Your task to perform on an android device: move a message to another label in the gmail app Image 0: 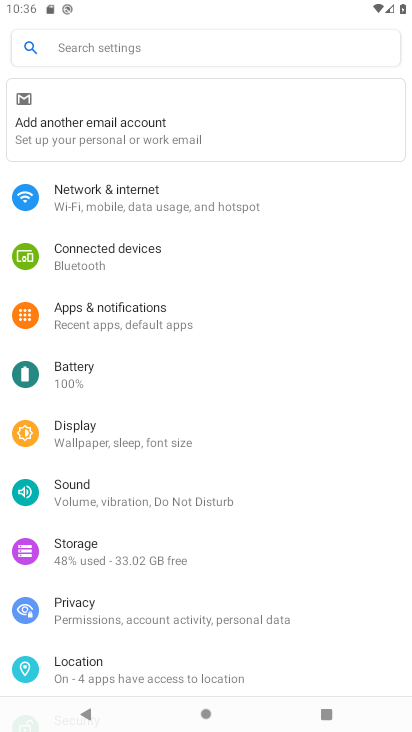
Step 0: press back button
Your task to perform on an android device: move a message to another label in the gmail app Image 1: 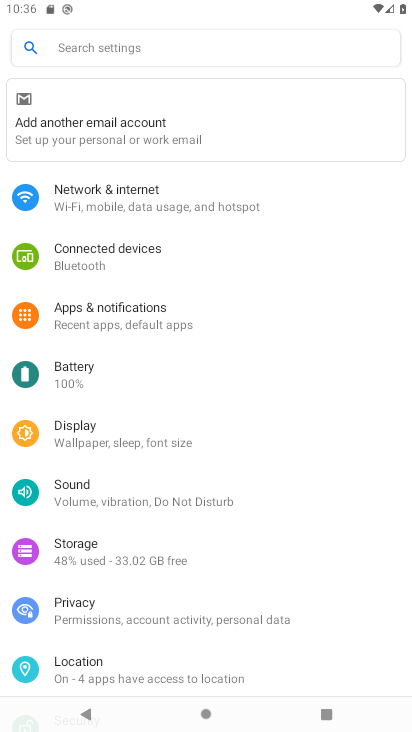
Step 1: press back button
Your task to perform on an android device: move a message to another label in the gmail app Image 2: 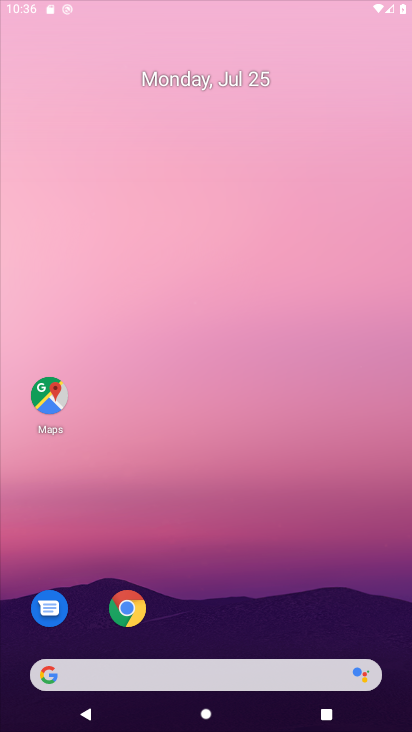
Step 2: press back button
Your task to perform on an android device: move a message to another label in the gmail app Image 3: 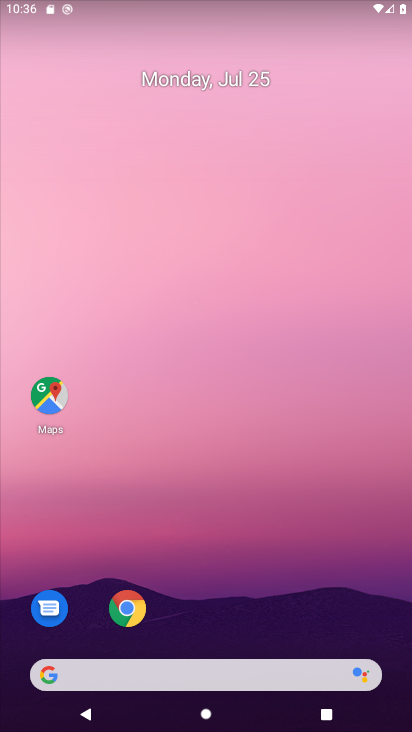
Step 3: drag from (207, 548) to (233, 64)
Your task to perform on an android device: move a message to another label in the gmail app Image 4: 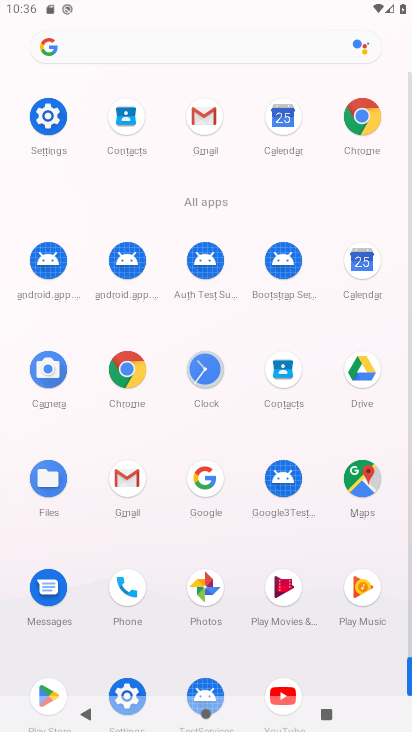
Step 4: click (126, 473)
Your task to perform on an android device: move a message to another label in the gmail app Image 5: 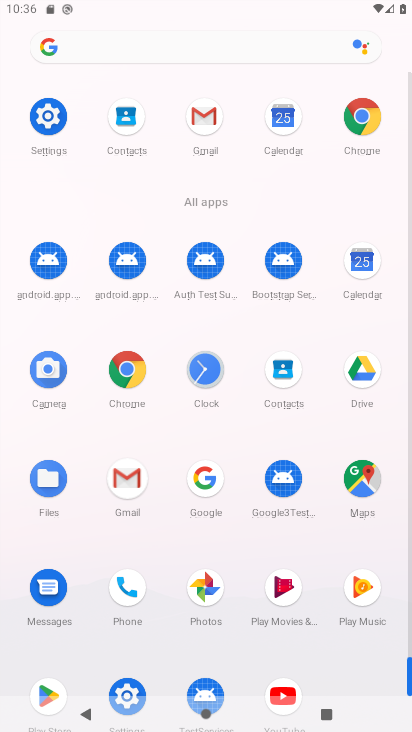
Step 5: click (119, 471)
Your task to perform on an android device: move a message to another label in the gmail app Image 6: 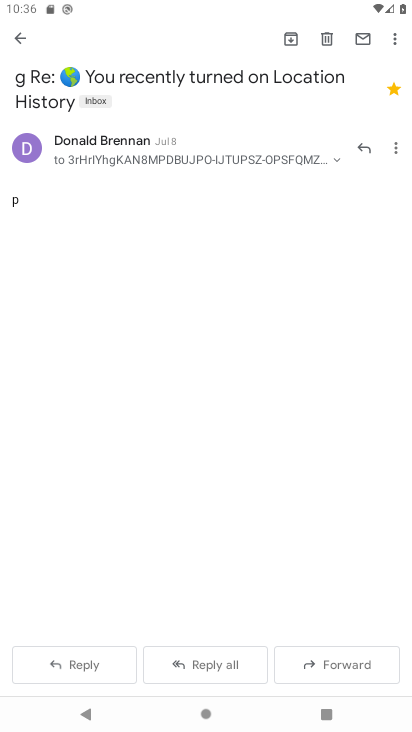
Step 6: click (19, 35)
Your task to perform on an android device: move a message to another label in the gmail app Image 7: 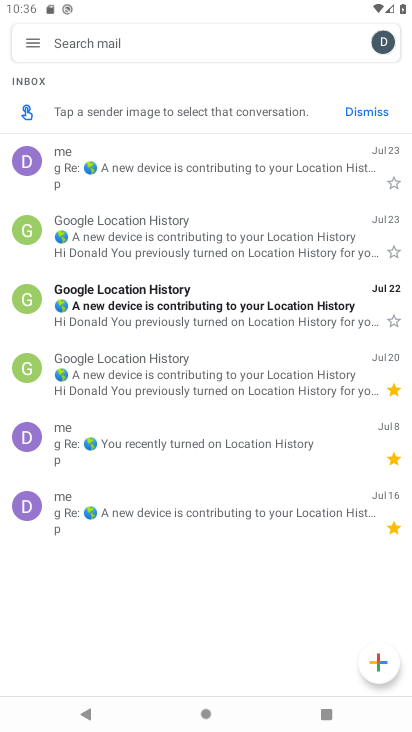
Step 7: click (391, 178)
Your task to perform on an android device: move a message to another label in the gmail app Image 8: 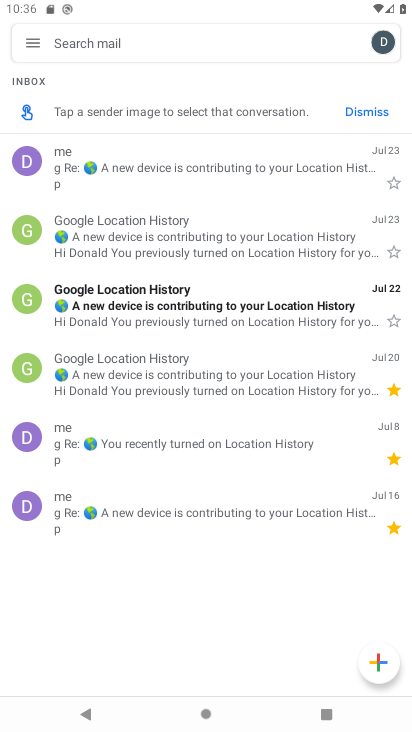
Step 8: click (390, 179)
Your task to perform on an android device: move a message to another label in the gmail app Image 9: 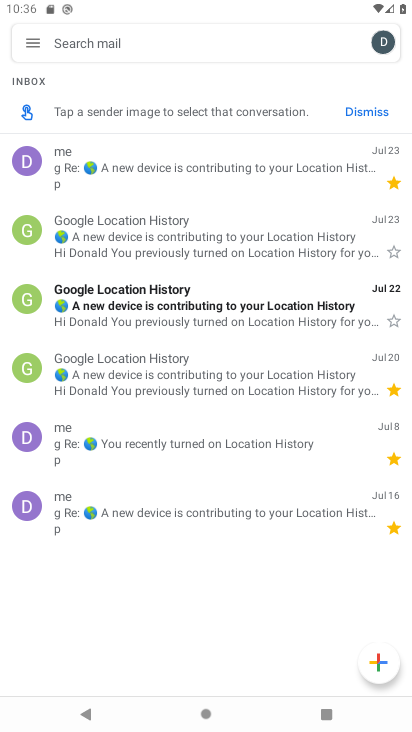
Step 9: click (390, 179)
Your task to perform on an android device: move a message to another label in the gmail app Image 10: 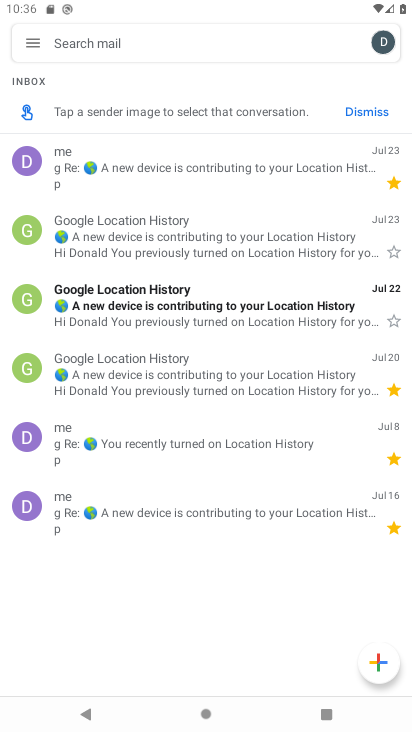
Step 10: task complete